Your task to perform on an android device: add a contact in the contacts app Image 0: 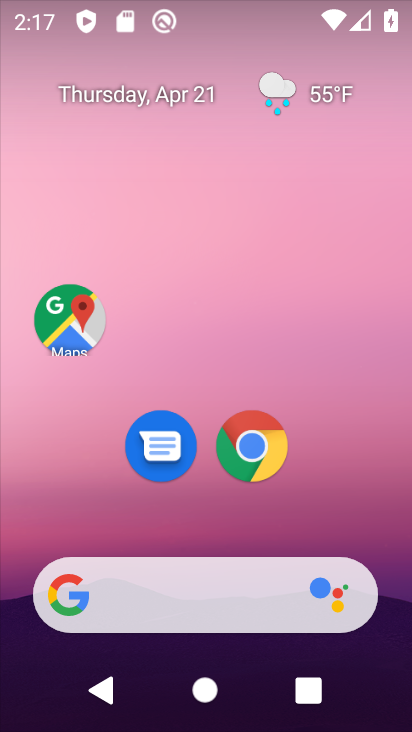
Step 0: drag from (208, 719) to (214, 87)
Your task to perform on an android device: add a contact in the contacts app Image 1: 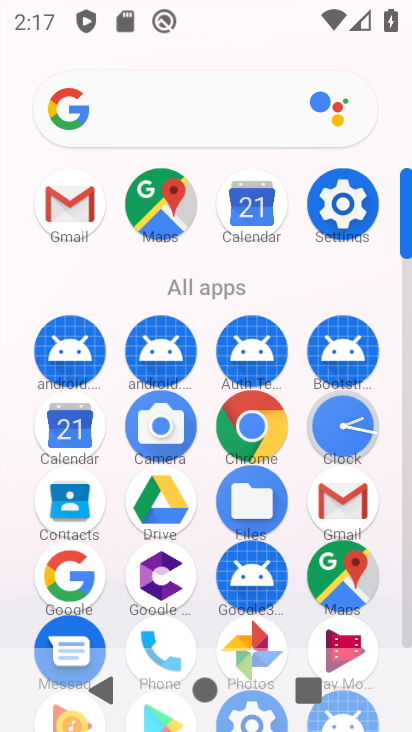
Step 1: click (57, 497)
Your task to perform on an android device: add a contact in the contacts app Image 2: 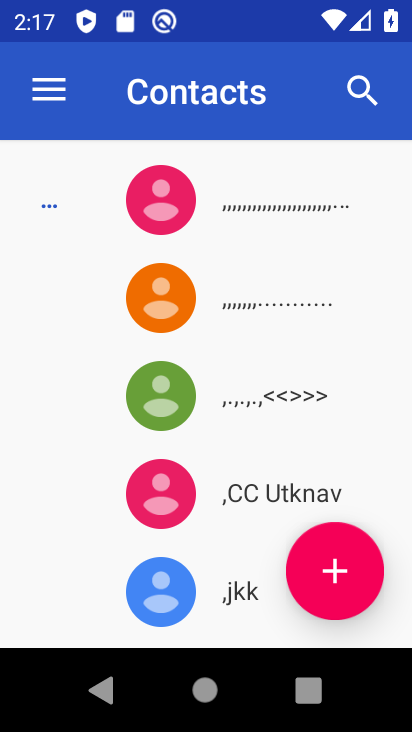
Step 2: click (342, 566)
Your task to perform on an android device: add a contact in the contacts app Image 3: 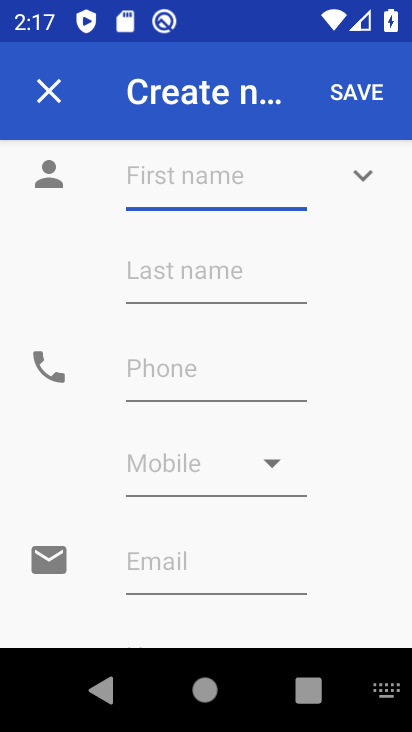
Step 3: type "nnnn"
Your task to perform on an android device: add a contact in the contacts app Image 4: 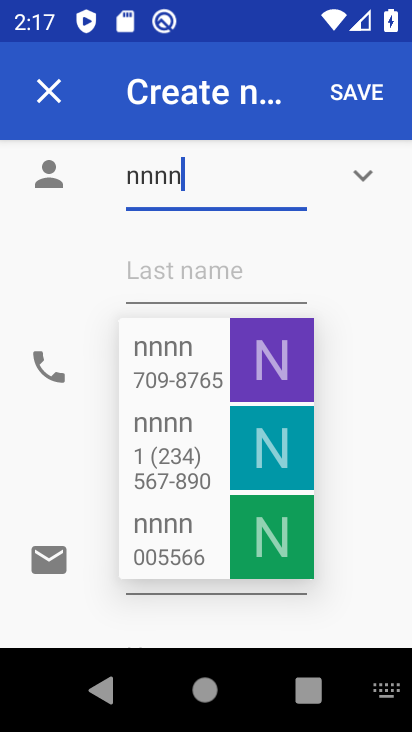
Step 4: type "vvvv"
Your task to perform on an android device: add a contact in the contacts app Image 5: 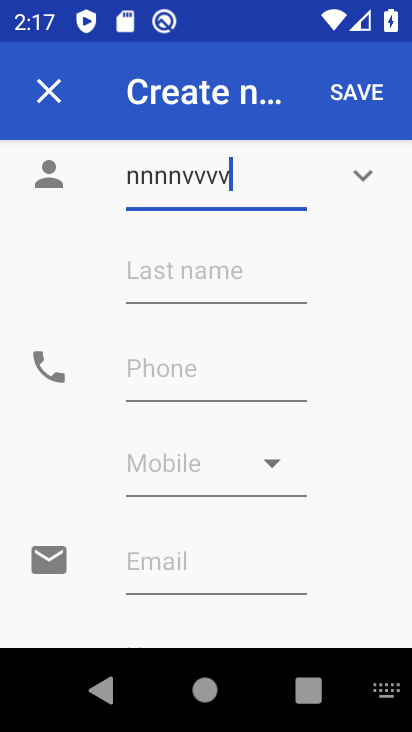
Step 5: click (170, 374)
Your task to perform on an android device: add a contact in the contacts app Image 6: 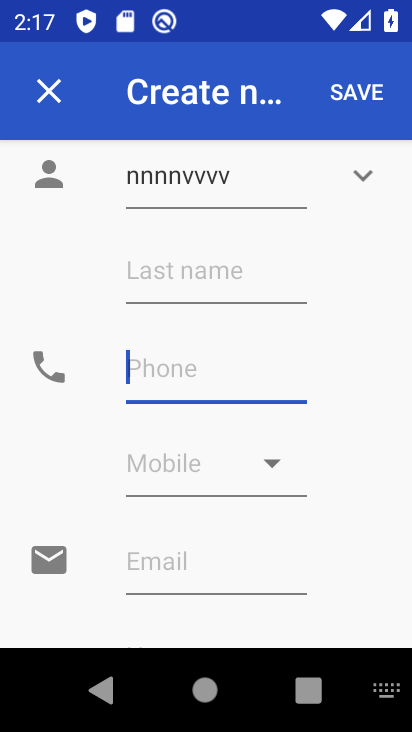
Step 6: type "87654"
Your task to perform on an android device: add a contact in the contacts app Image 7: 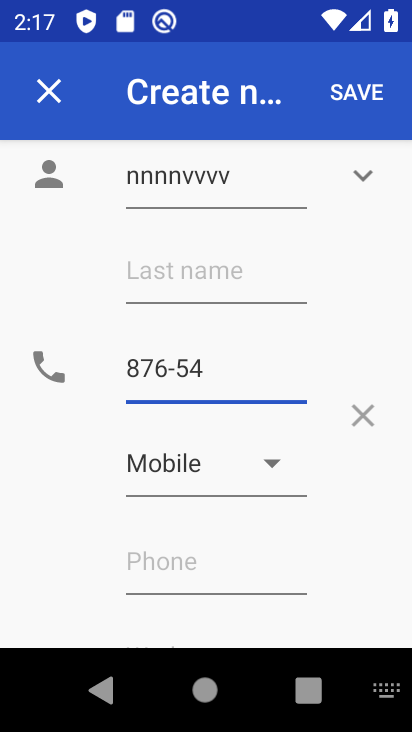
Step 7: click (355, 84)
Your task to perform on an android device: add a contact in the contacts app Image 8: 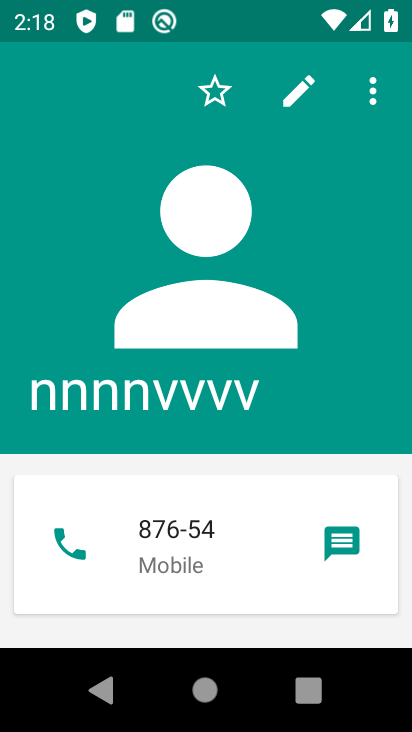
Step 8: task complete